Your task to perform on an android device: open device folders in google photos Image 0: 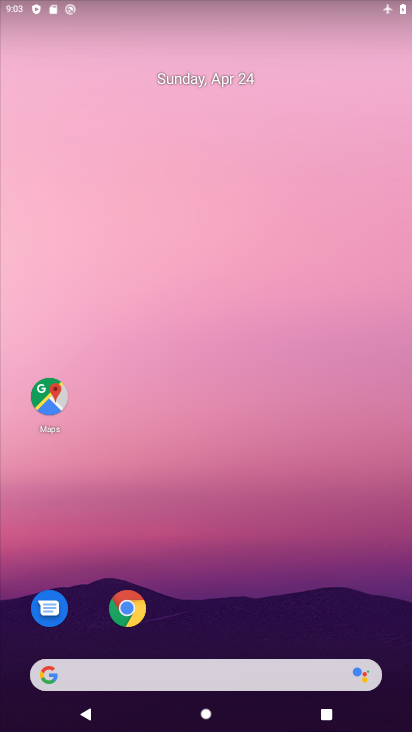
Step 0: drag from (213, 456) to (213, 113)
Your task to perform on an android device: open device folders in google photos Image 1: 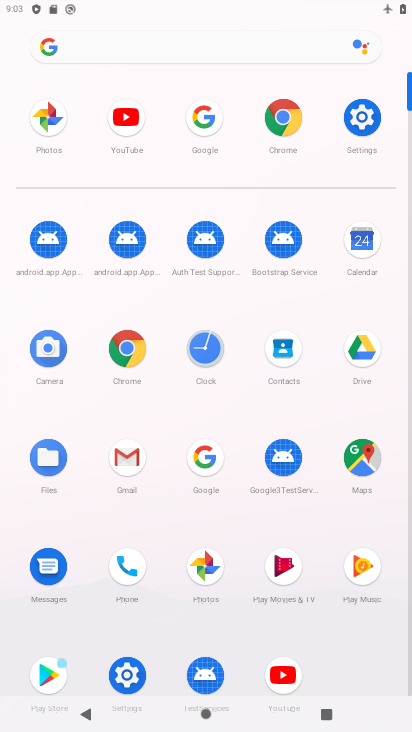
Step 1: click (213, 565)
Your task to perform on an android device: open device folders in google photos Image 2: 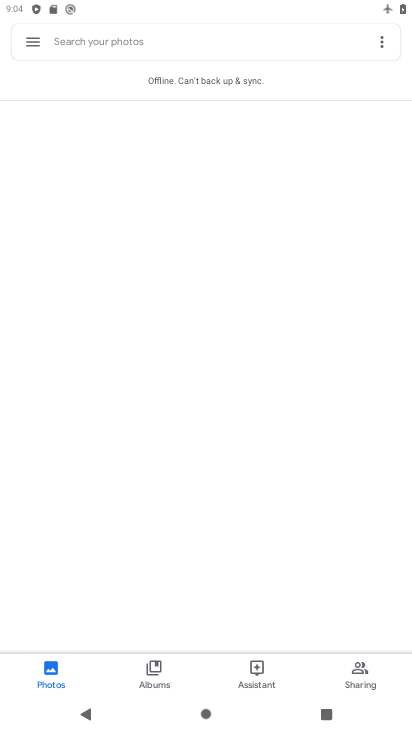
Step 2: click (33, 50)
Your task to perform on an android device: open device folders in google photos Image 3: 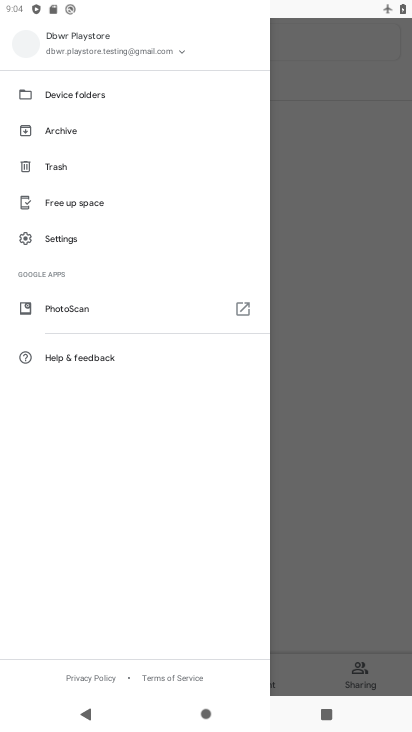
Step 3: click (102, 99)
Your task to perform on an android device: open device folders in google photos Image 4: 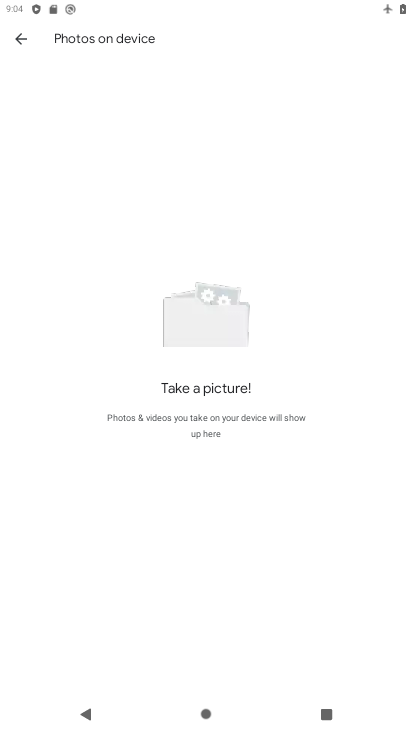
Step 4: task complete